Your task to perform on an android device: Open internet settings Image 0: 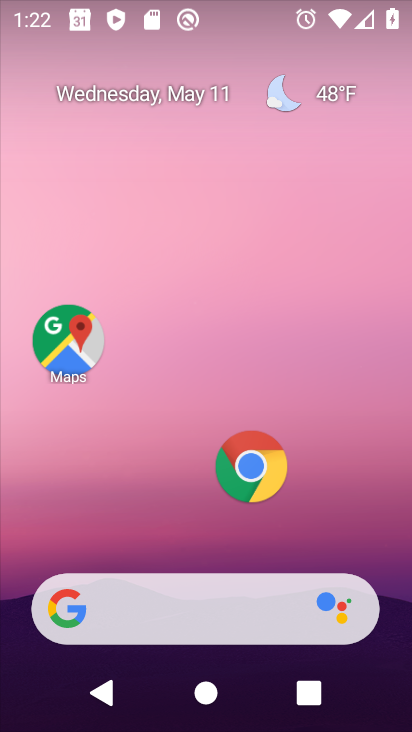
Step 0: drag from (127, 555) to (253, 63)
Your task to perform on an android device: Open internet settings Image 1: 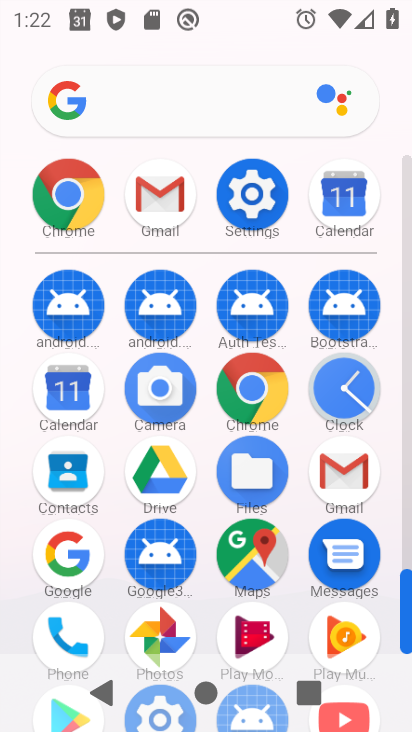
Step 1: click (252, 203)
Your task to perform on an android device: Open internet settings Image 2: 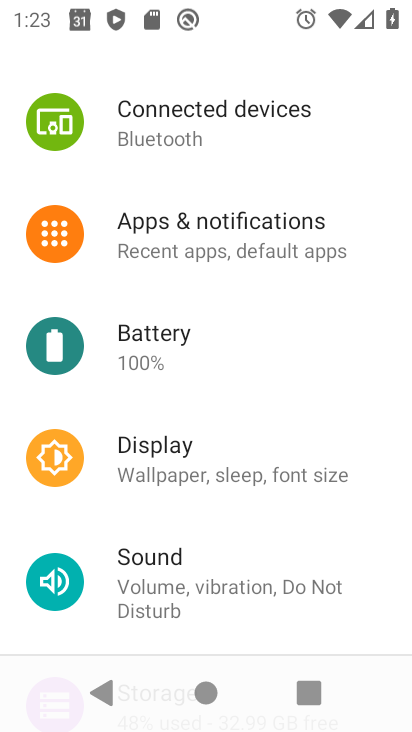
Step 2: drag from (295, 157) to (234, 665)
Your task to perform on an android device: Open internet settings Image 3: 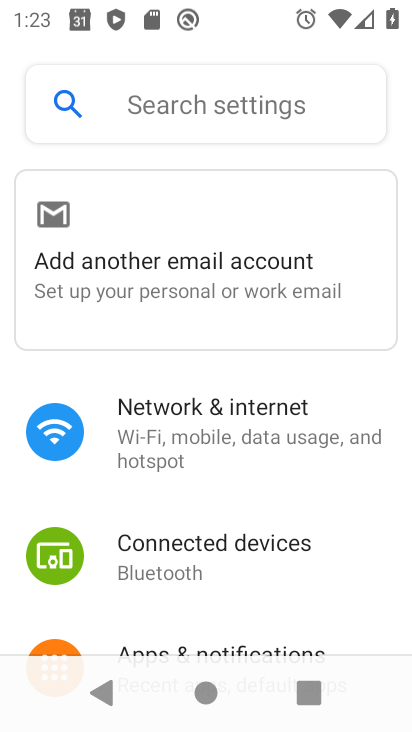
Step 3: click (232, 409)
Your task to perform on an android device: Open internet settings Image 4: 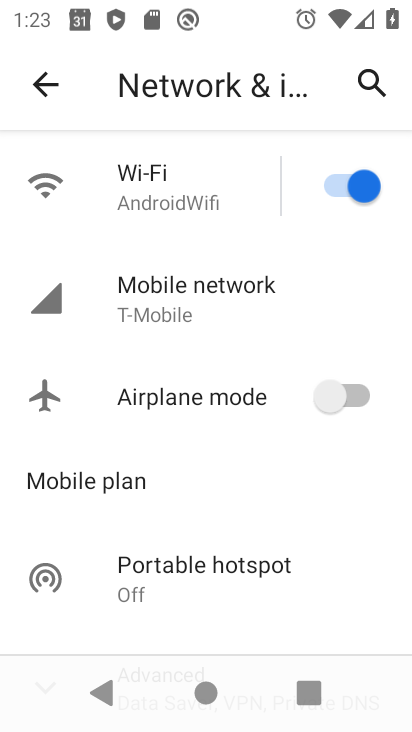
Step 4: task complete